Your task to perform on an android device: What's the weather? Image 0: 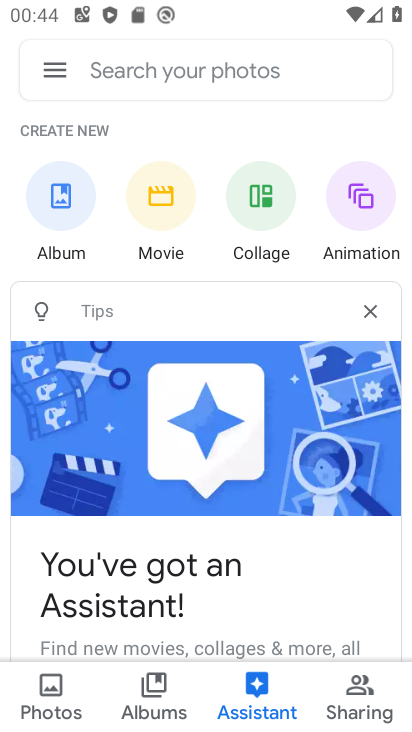
Step 0: press home button
Your task to perform on an android device: What's the weather? Image 1: 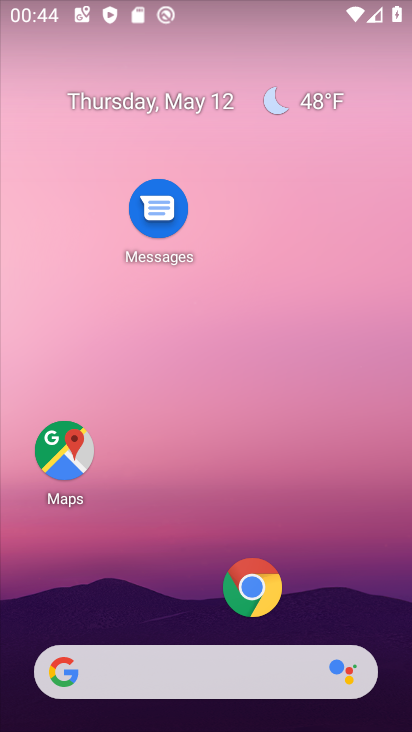
Step 1: click (194, 657)
Your task to perform on an android device: What's the weather? Image 2: 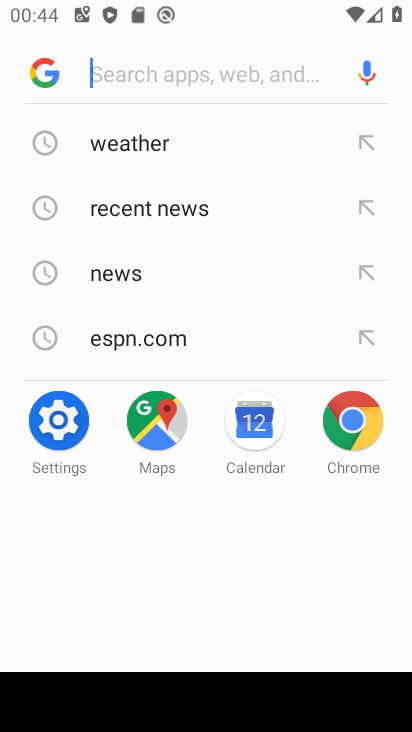
Step 2: click (114, 150)
Your task to perform on an android device: What's the weather? Image 3: 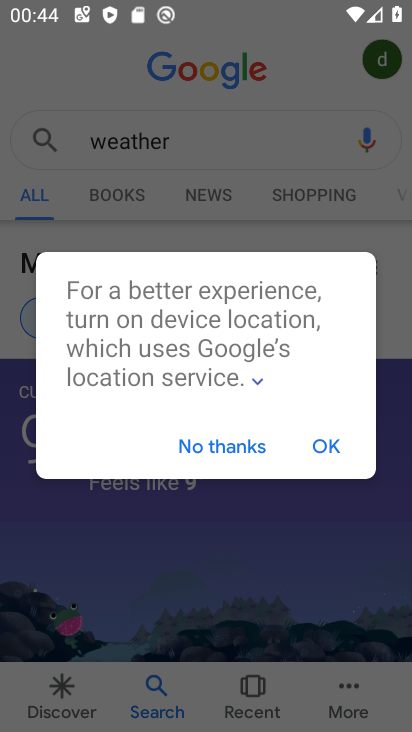
Step 3: click (319, 445)
Your task to perform on an android device: What's the weather? Image 4: 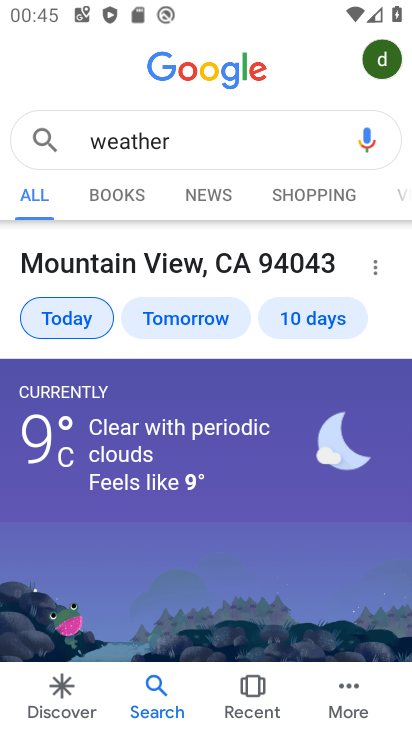
Step 4: task complete